Your task to perform on an android device: Open Youtube and go to the subscriptions tab Image 0: 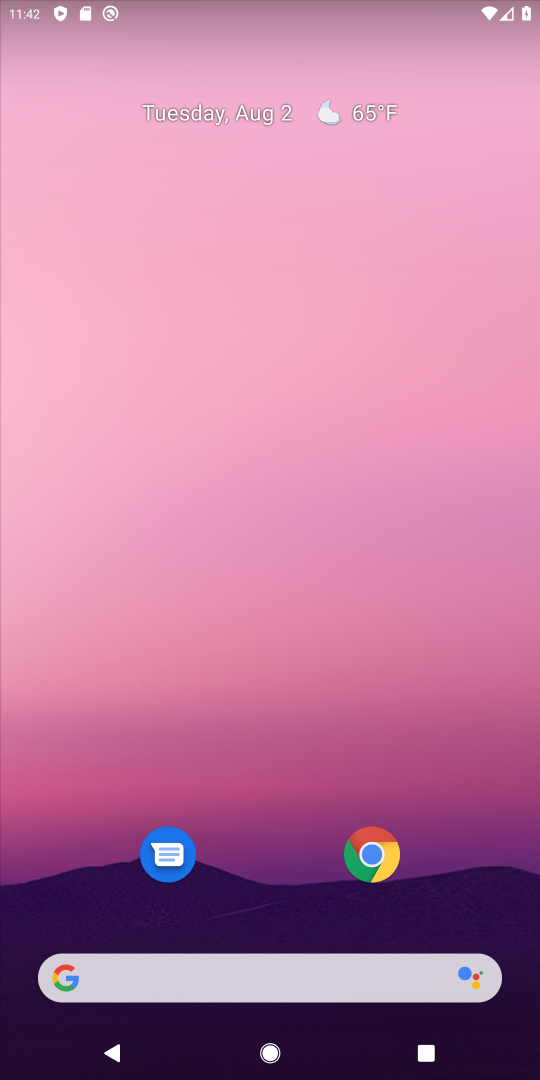
Step 0: drag from (431, 786) to (417, 113)
Your task to perform on an android device: Open Youtube and go to the subscriptions tab Image 1: 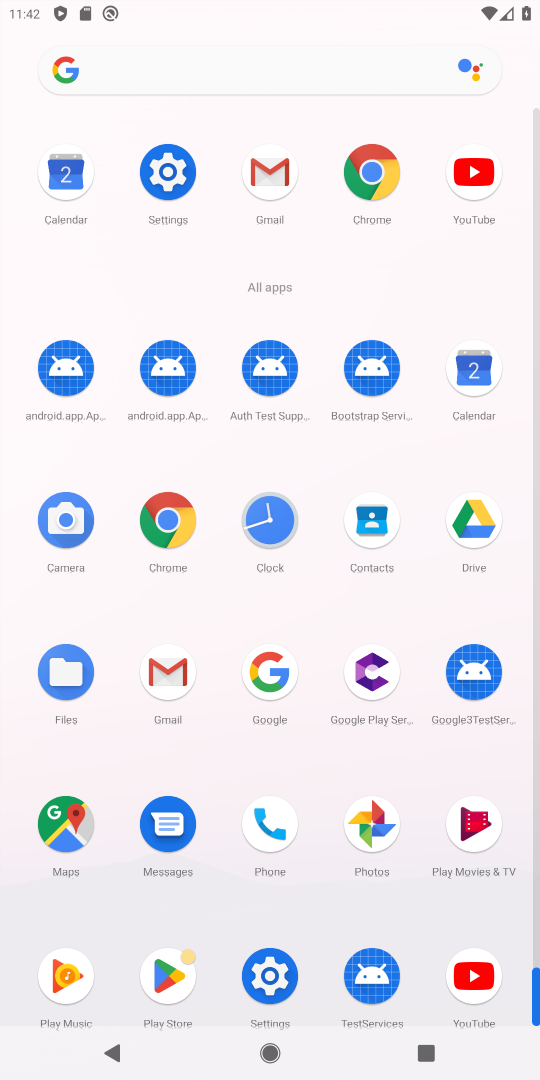
Step 1: click (482, 189)
Your task to perform on an android device: Open Youtube and go to the subscriptions tab Image 2: 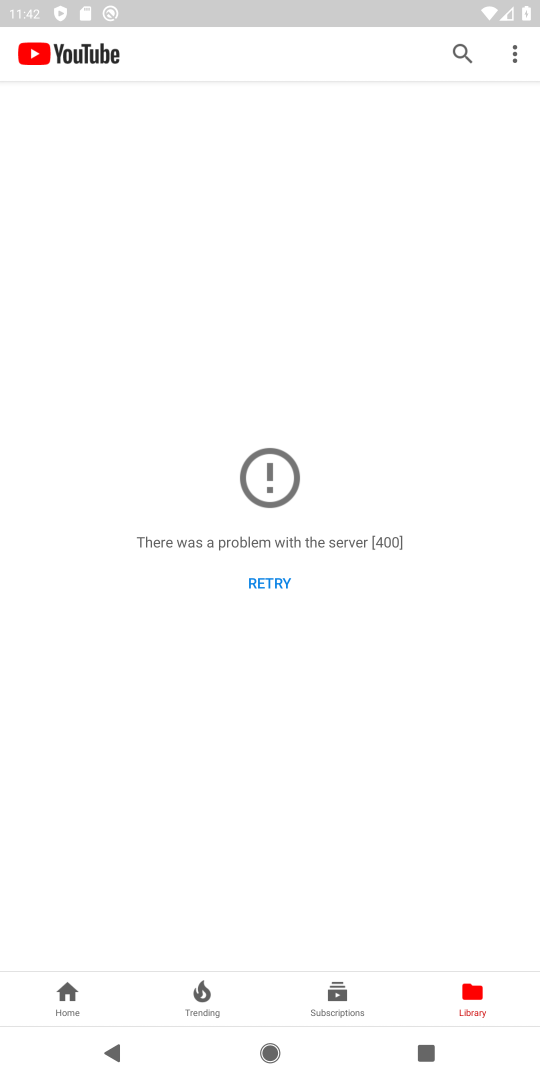
Step 2: click (335, 1003)
Your task to perform on an android device: Open Youtube and go to the subscriptions tab Image 3: 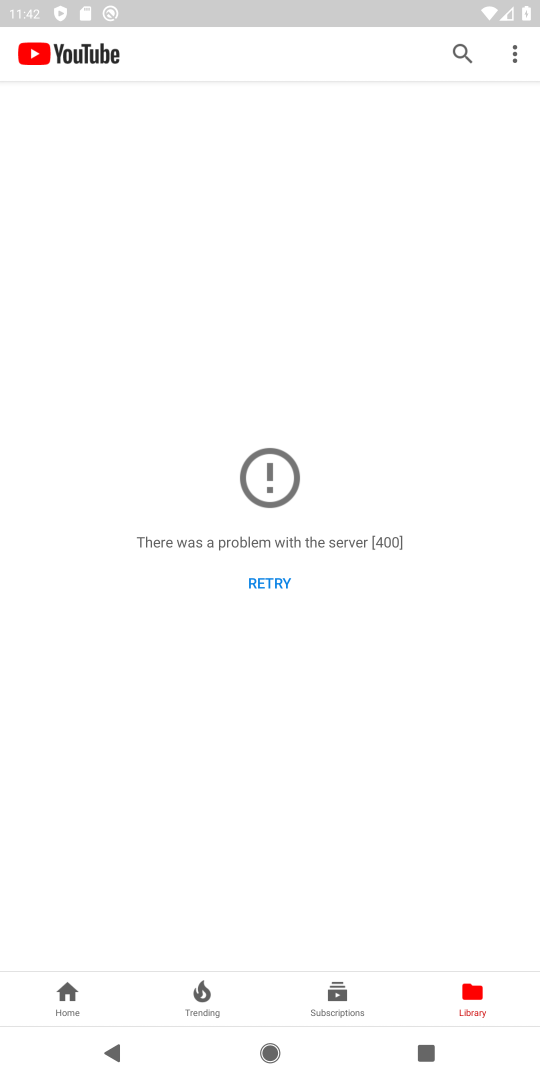
Step 3: click (335, 1003)
Your task to perform on an android device: Open Youtube and go to the subscriptions tab Image 4: 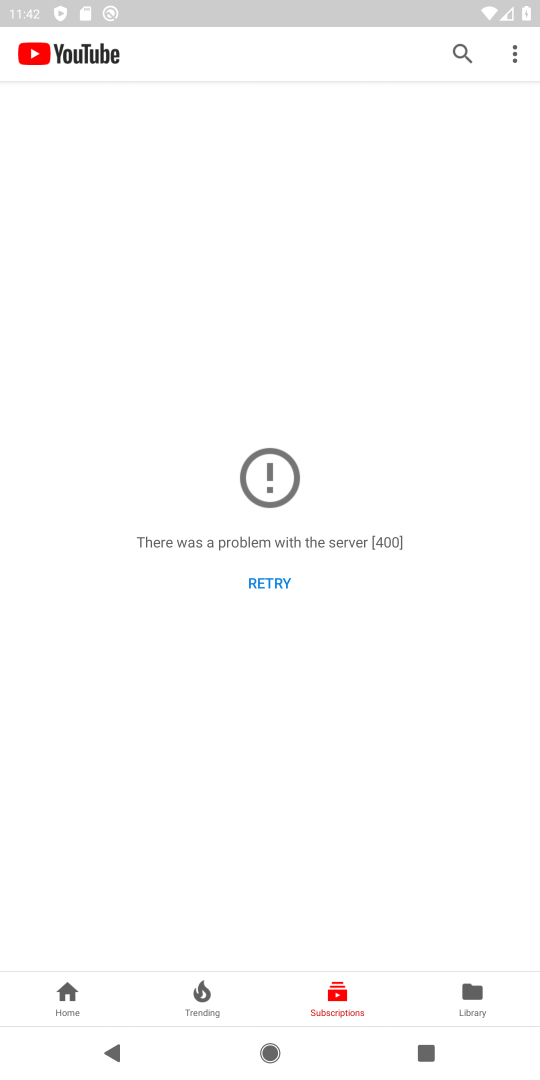
Step 4: task complete